Your task to perform on an android device: turn off data saver in the chrome app Image 0: 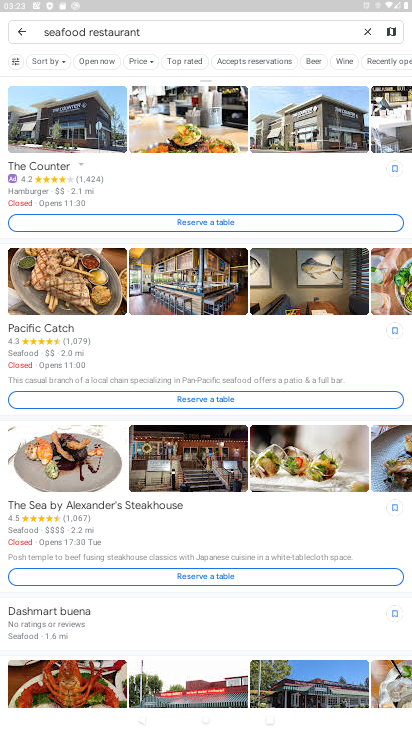
Step 0: press home button
Your task to perform on an android device: turn off data saver in the chrome app Image 1: 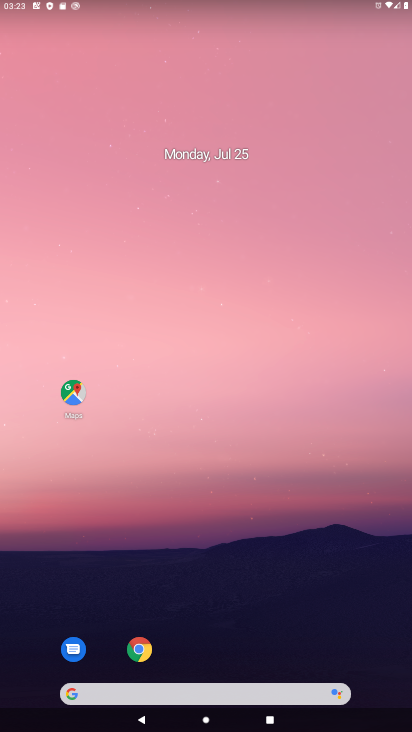
Step 1: click (140, 650)
Your task to perform on an android device: turn off data saver in the chrome app Image 2: 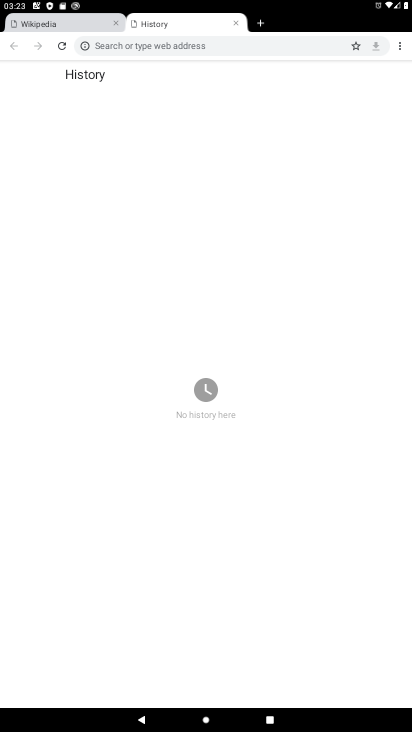
Step 2: click (400, 50)
Your task to perform on an android device: turn off data saver in the chrome app Image 3: 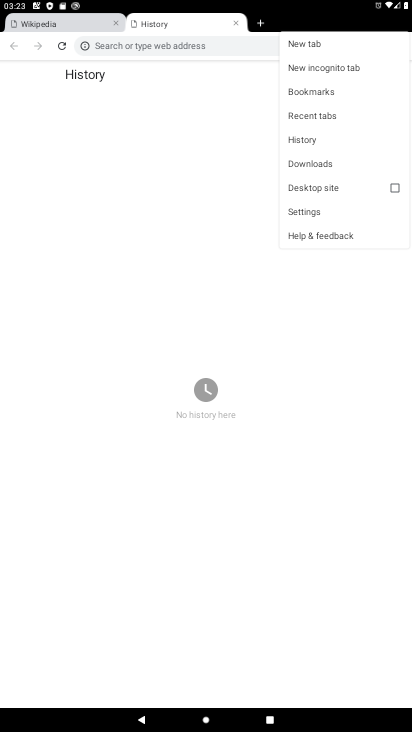
Step 3: click (305, 210)
Your task to perform on an android device: turn off data saver in the chrome app Image 4: 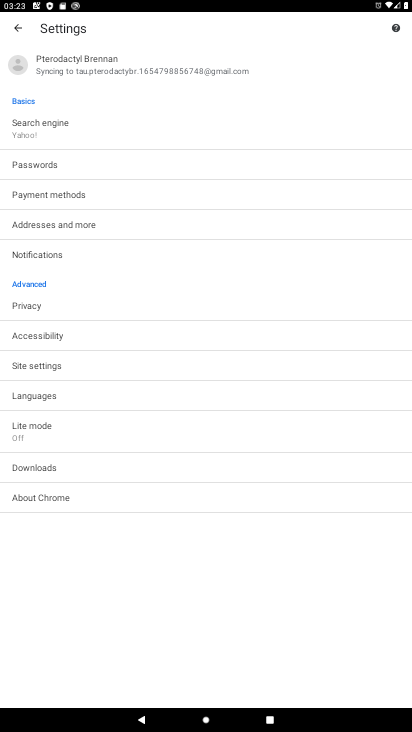
Step 4: click (20, 427)
Your task to perform on an android device: turn off data saver in the chrome app Image 5: 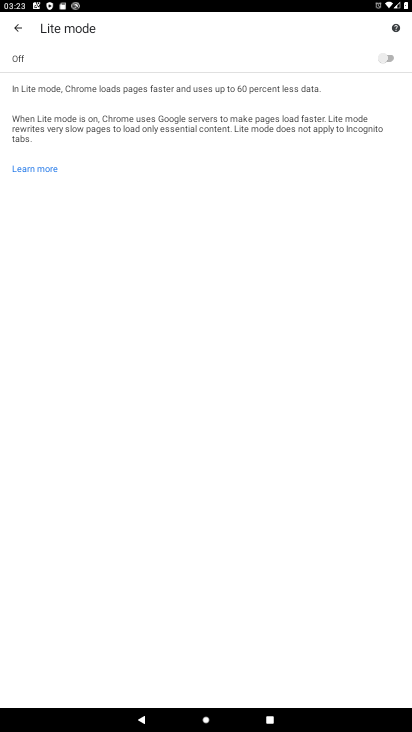
Step 5: task complete